Your task to perform on an android device: Add "razer thresher" to the cart on walmart, then select checkout. Image 0: 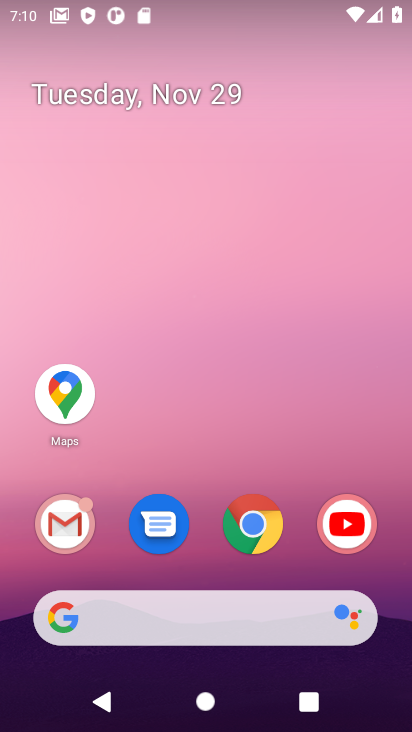
Step 0: click (253, 530)
Your task to perform on an android device: Add "razer thresher" to the cart on walmart, then select checkout. Image 1: 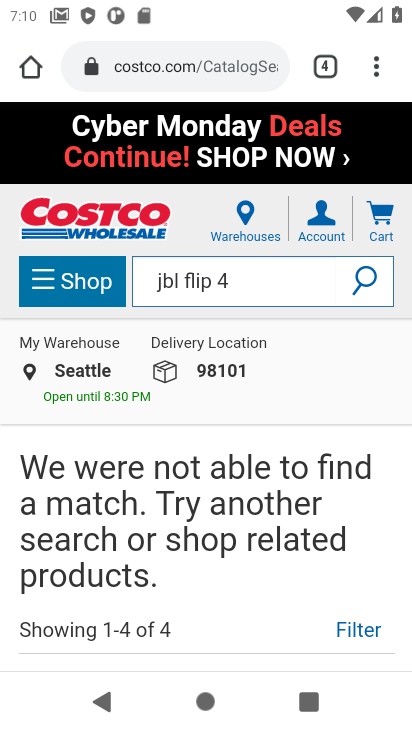
Step 1: click (185, 61)
Your task to perform on an android device: Add "razer thresher" to the cart on walmart, then select checkout. Image 2: 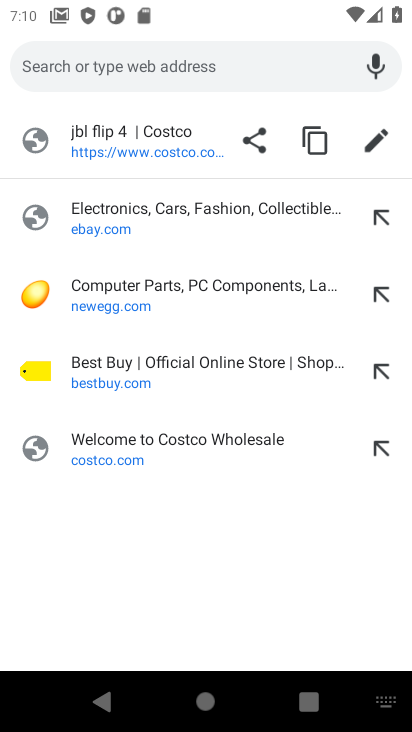
Step 2: type "walmart.com"
Your task to perform on an android device: Add "razer thresher" to the cart on walmart, then select checkout. Image 3: 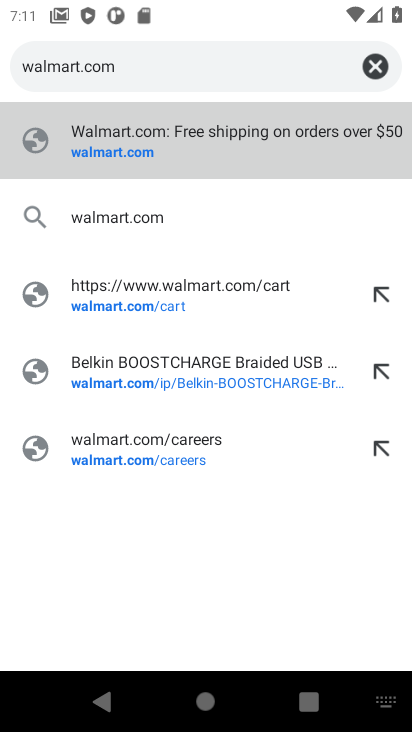
Step 3: click (101, 152)
Your task to perform on an android device: Add "razer thresher" to the cart on walmart, then select checkout. Image 4: 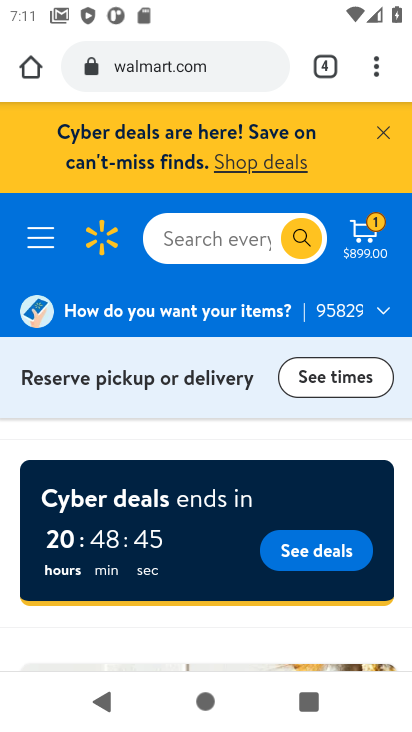
Step 4: click (192, 241)
Your task to perform on an android device: Add "razer thresher" to the cart on walmart, then select checkout. Image 5: 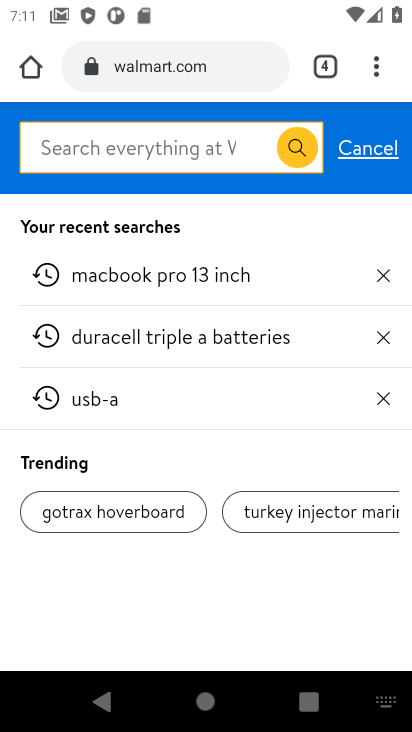
Step 5: type "razer thresher"
Your task to perform on an android device: Add "razer thresher" to the cart on walmart, then select checkout. Image 6: 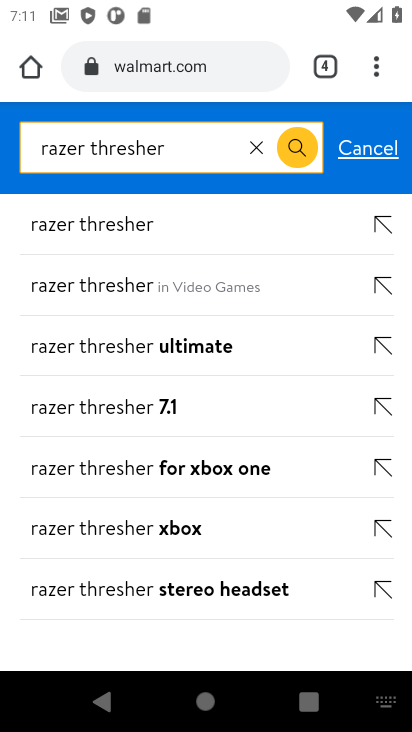
Step 6: click (91, 226)
Your task to perform on an android device: Add "razer thresher" to the cart on walmart, then select checkout. Image 7: 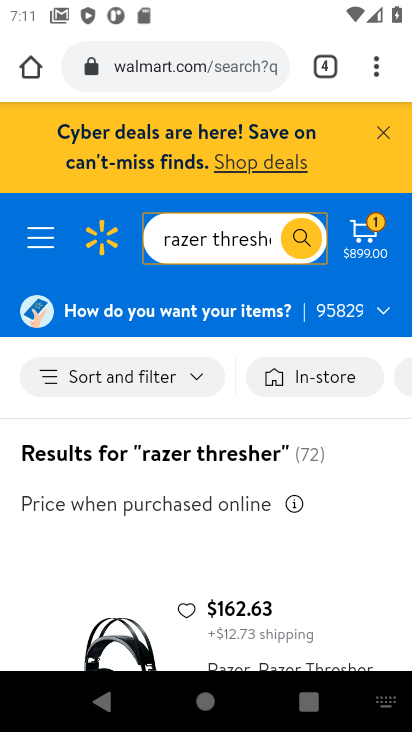
Step 7: drag from (173, 466) to (164, 202)
Your task to perform on an android device: Add "razer thresher" to the cart on walmart, then select checkout. Image 8: 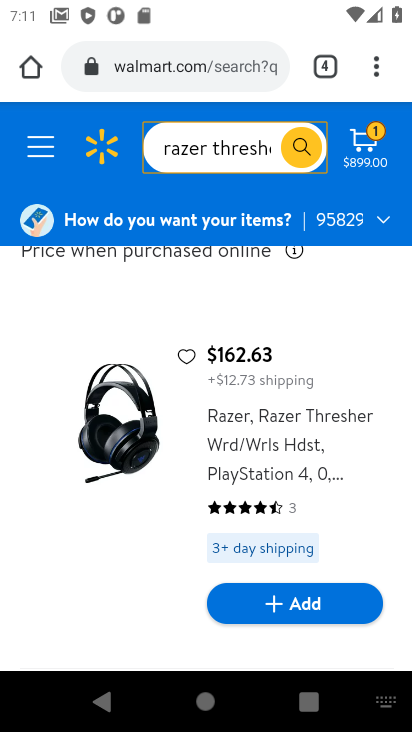
Step 8: click (299, 600)
Your task to perform on an android device: Add "razer thresher" to the cart on walmart, then select checkout. Image 9: 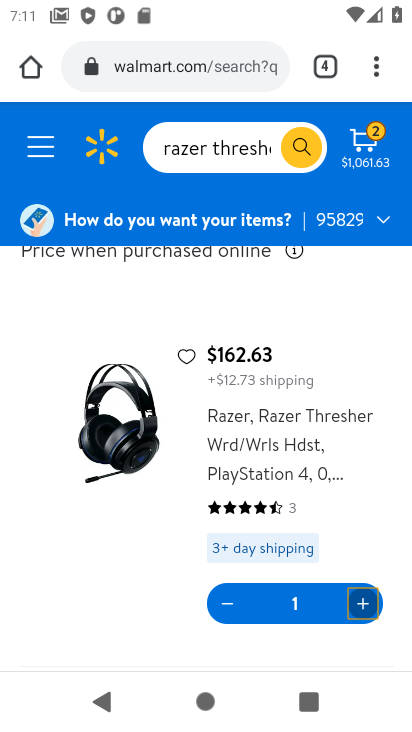
Step 9: click (371, 152)
Your task to perform on an android device: Add "razer thresher" to the cart on walmart, then select checkout. Image 10: 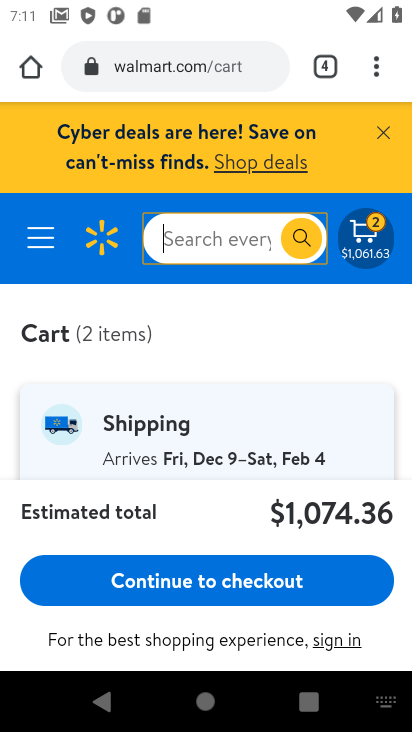
Step 10: click (204, 581)
Your task to perform on an android device: Add "razer thresher" to the cart on walmart, then select checkout. Image 11: 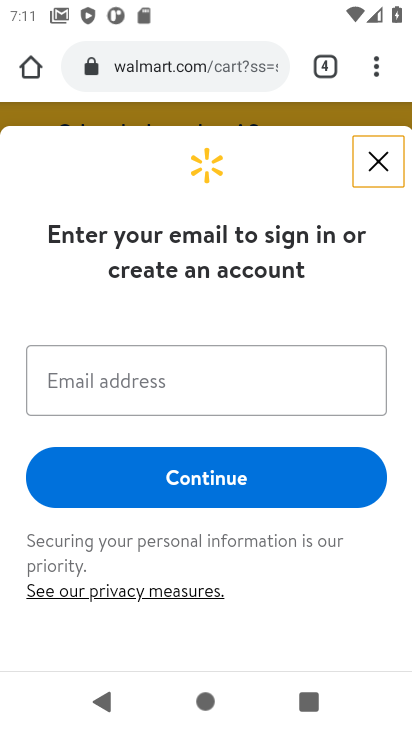
Step 11: task complete